Your task to perform on an android device: see tabs open on other devices in the chrome app Image 0: 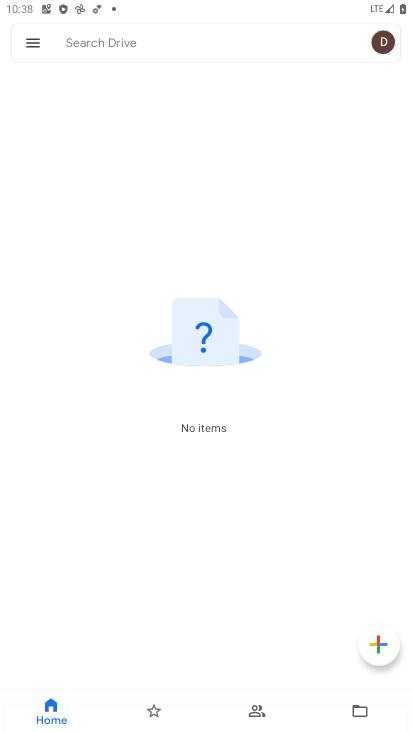
Step 0: press home button
Your task to perform on an android device: see tabs open on other devices in the chrome app Image 1: 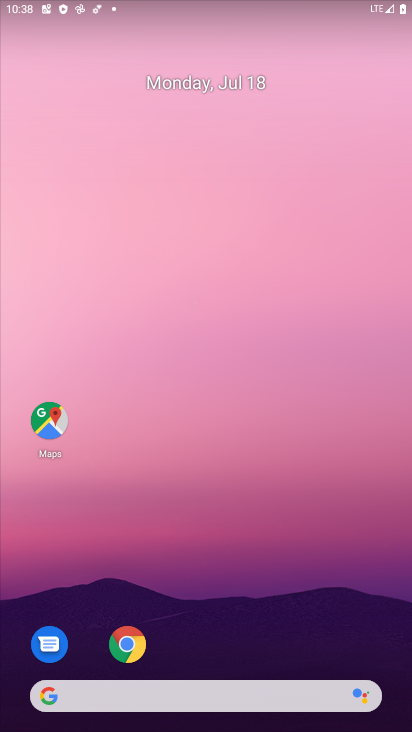
Step 1: drag from (329, 620) to (325, 118)
Your task to perform on an android device: see tabs open on other devices in the chrome app Image 2: 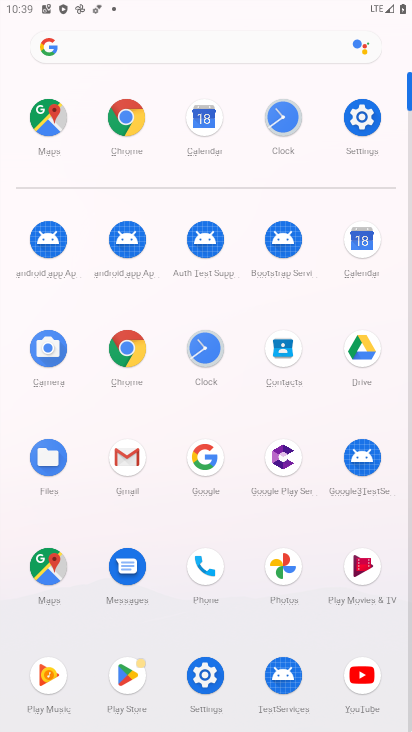
Step 2: click (135, 344)
Your task to perform on an android device: see tabs open on other devices in the chrome app Image 3: 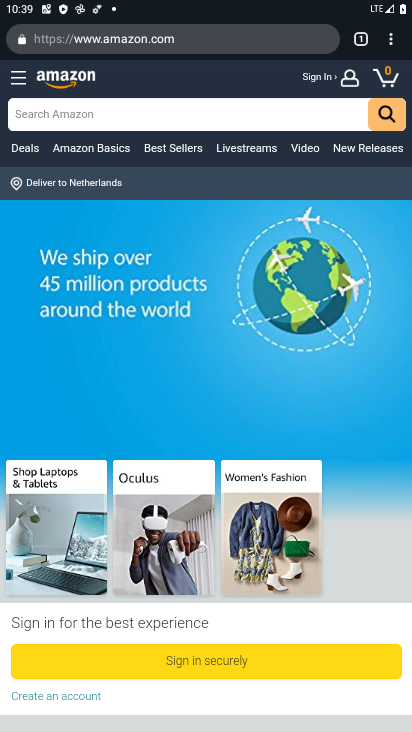
Step 3: click (389, 40)
Your task to perform on an android device: see tabs open on other devices in the chrome app Image 4: 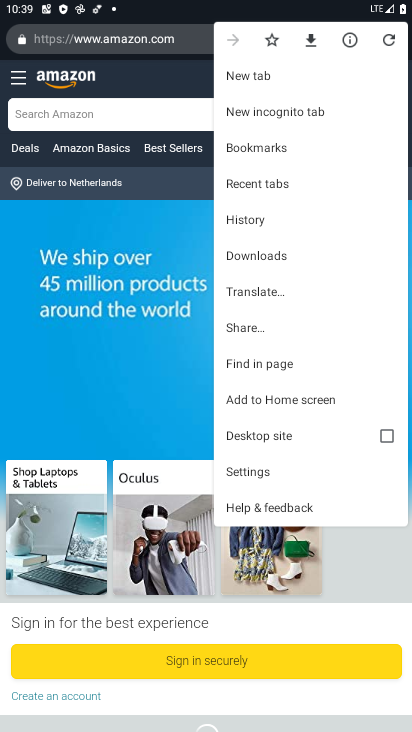
Step 4: click (286, 175)
Your task to perform on an android device: see tabs open on other devices in the chrome app Image 5: 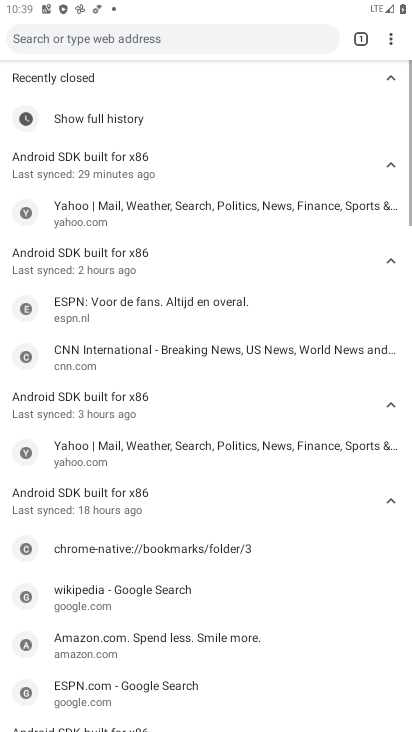
Step 5: drag from (287, 550) to (301, 314)
Your task to perform on an android device: see tabs open on other devices in the chrome app Image 6: 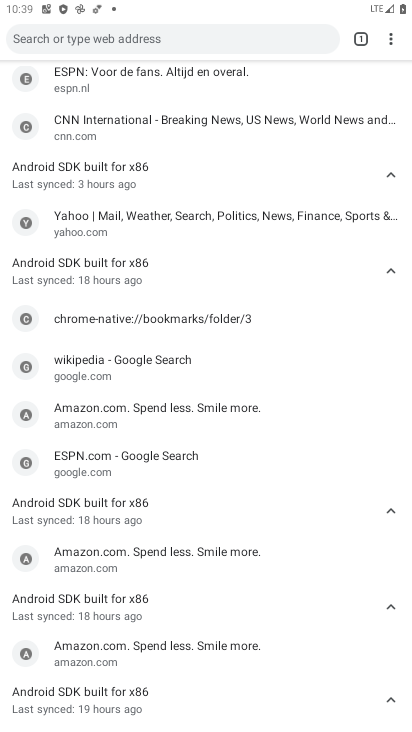
Step 6: drag from (282, 537) to (300, 372)
Your task to perform on an android device: see tabs open on other devices in the chrome app Image 7: 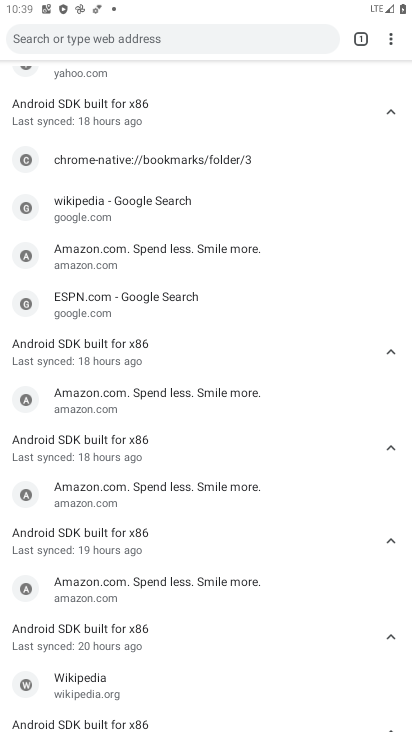
Step 7: drag from (306, 562) to (317, 424)
Your task to perform on an android device: see tabs open on other devices in the chrome app Image 8: 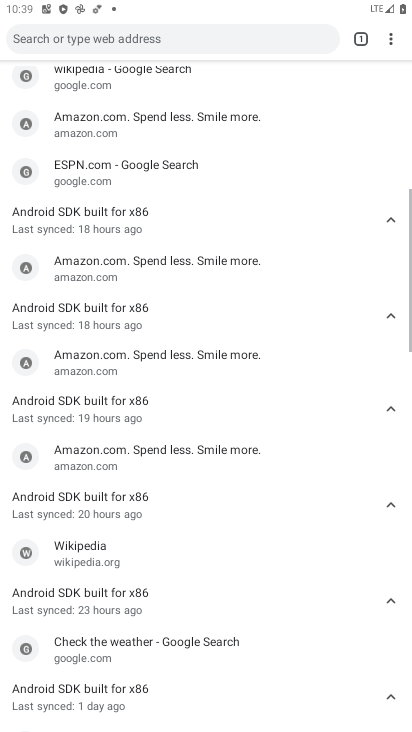
Step 8: drag from (315, 306) to (316, 458)
Your task to perform on an android device: see tabs open on other devices in the chrome app Image 9: 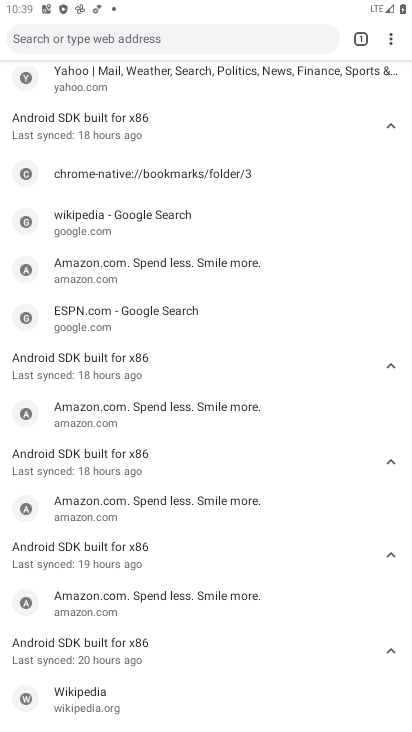
Step 9: drag from (304, 283) to (294, 358)
Your task to perform on an android device: see tabs open on other devices in the chrome app Image 10: 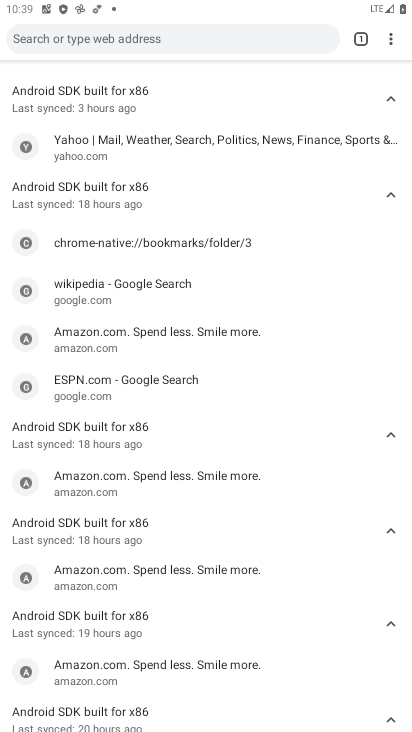
Step 10: click (359, 42)
Your task to perform on an android device: see tabs open on other devices in the chrome app Image 11: 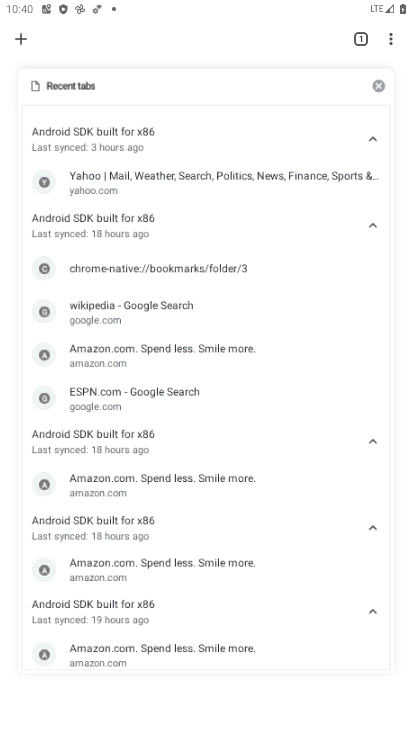
Step 11: task complete